Your task to perform on an android device: Search for vegetarian restaurants on Maps Image 0: 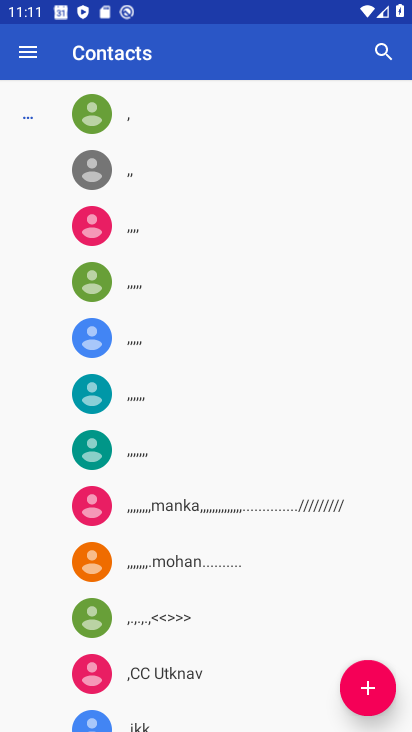
Step 0: press home button
Your task to perform on an android device: Search for vegetarian restaurants on Maps Image 1: 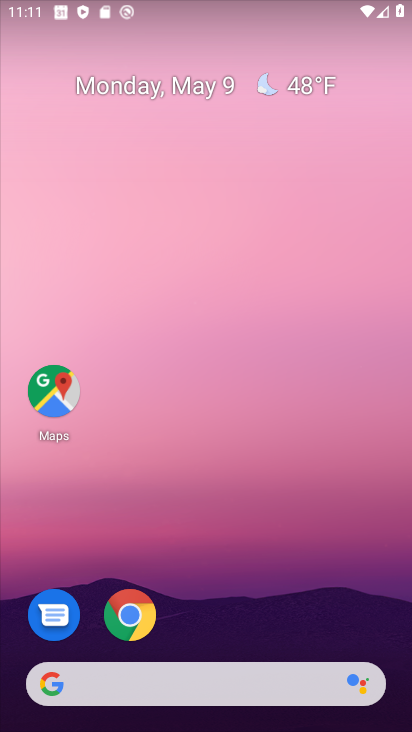
Step 1: click (57, 378)
Your task to perform on an android device: Search for vegetarian restaurants on Maps Image 2: 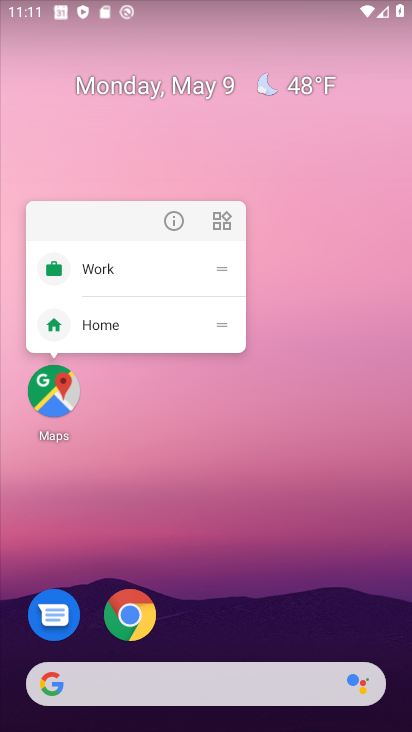
Step 2: click (50, 400)
Your task to perform on an android device: Search for vegetarian restaurants on Maps Image 3: 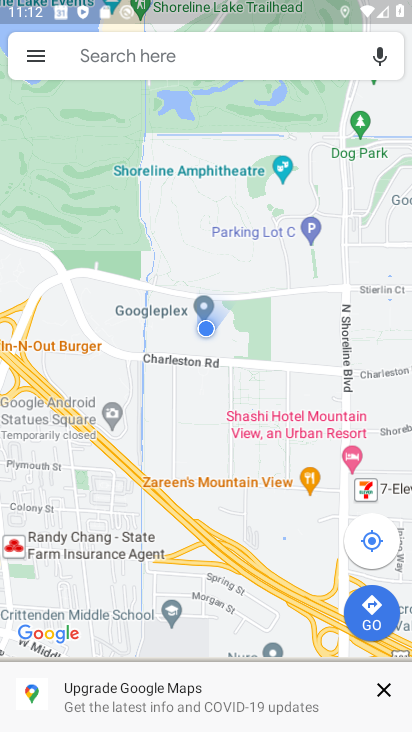
Step 3: click (214, 52)
Your task to perform on an android device: Search for vegetarian restaurants on Maps Image 4: 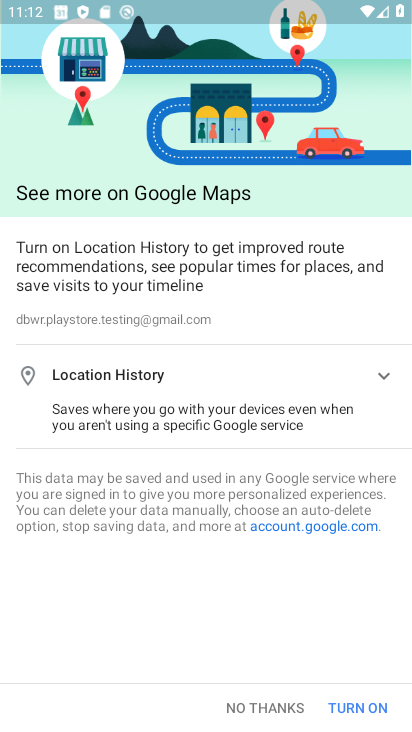
Step 4: click (271, 715)
Your task to perform on an android device: Search for vegetarian restaurants on Maps Image 5: 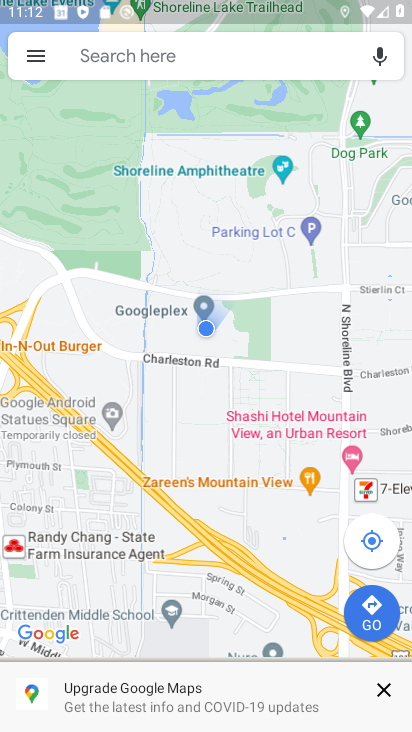
Step 5: click (172, 52)
Your task to perform on an android device: Search for vegetarian restaurants on Maps Image 6: 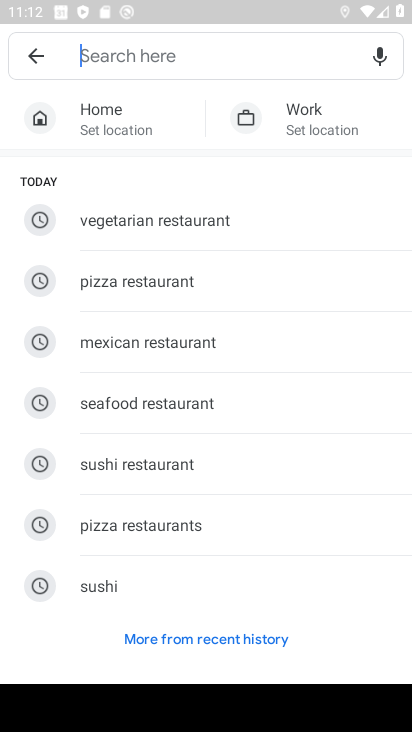
Step 6: click (188, 215)
Your task to perform on an android device: Search for vegetarian restaurants on Maps Image 7: 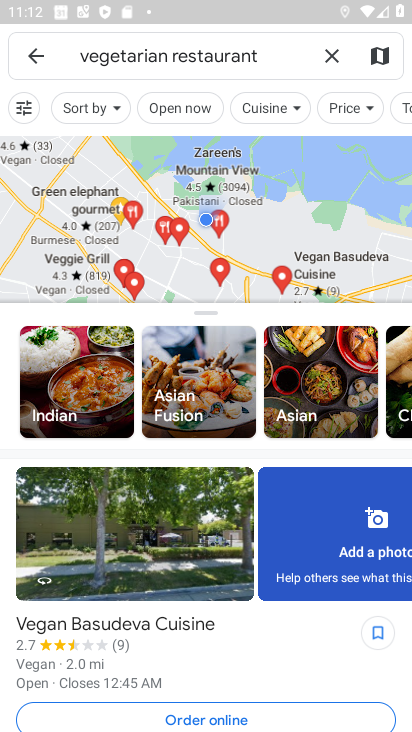
Step 7: task complete